Your task to perform on an android device: stop showing notifications on the lock screen Image 0: 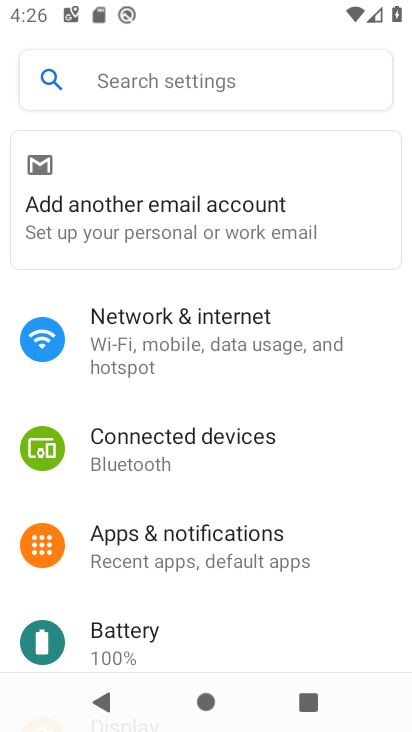
Step 0: click (235, 561)
Your task to perform on an android device: stop showing notifications on the lock screen Image 1: 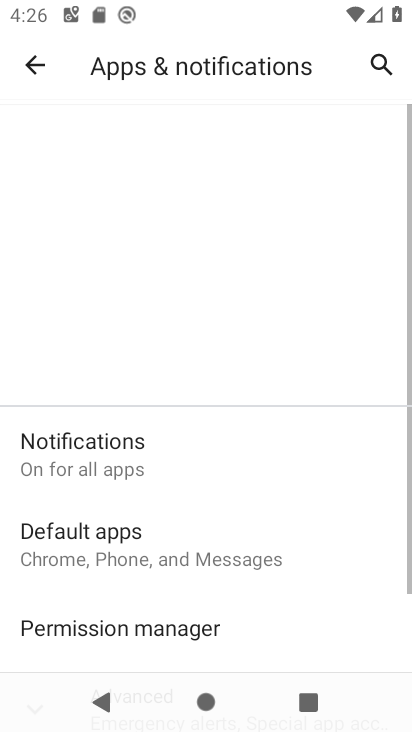
Step 1: drag from (230, 563) to (265, 197)
Your task to perform on an android device: stop showing notifications on the lock screen Image 2: 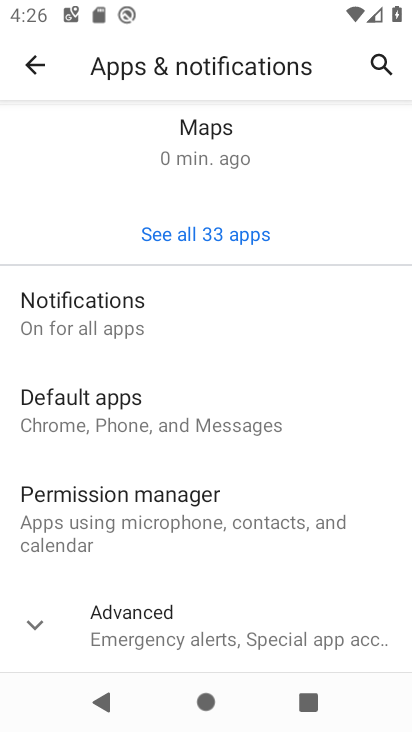
Step 2: click (73, 365)
Your task to perform on an android device: stop showing notifications on the lock screen Image 3: 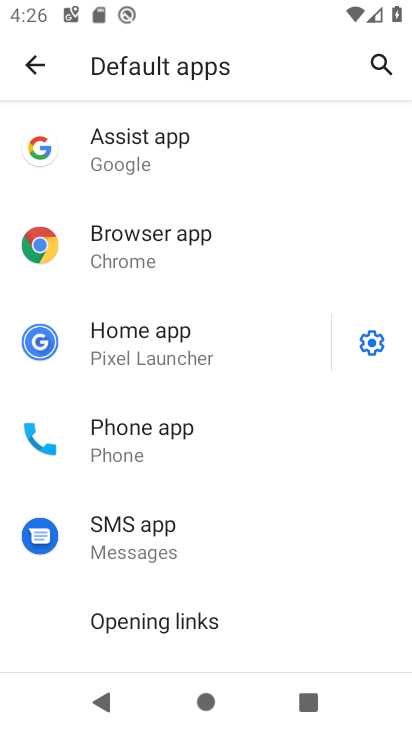
Step 3: click (16, 67)
Your task to perform on an android device: stop showing notifications on the lock screen Image 4: 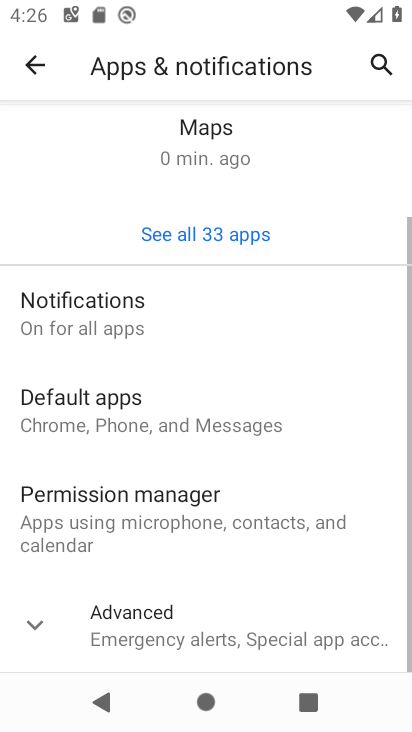
Step 4: click (78, 319)
Your task to perform on an android device: stop showing notifications on the lock screen Image 5: 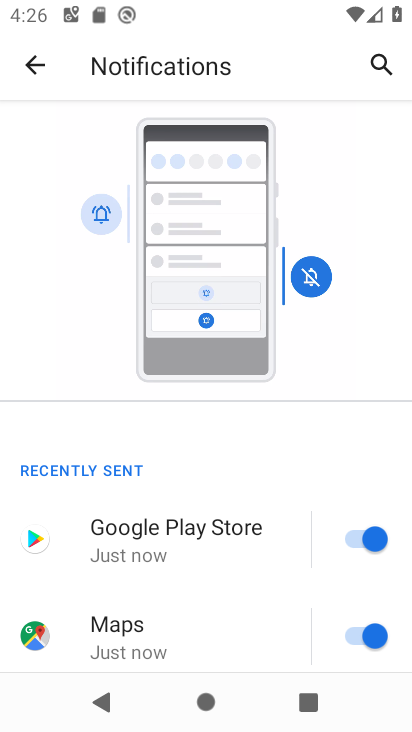
Step 5: drag from (225, 605) to (259, 416)
Your task to perform on an android device: stop showing notifications on the lock screen Image 6: 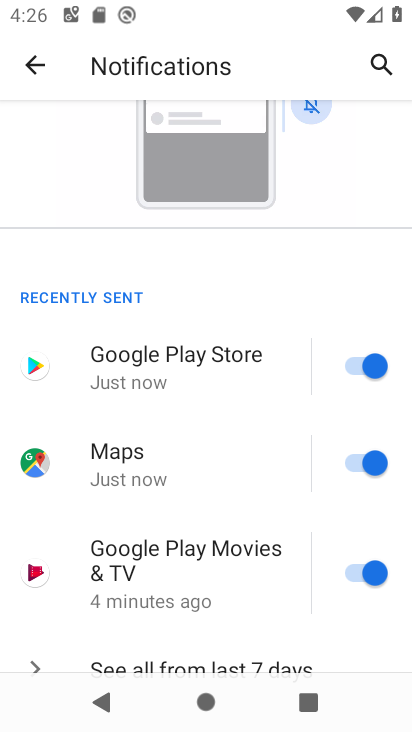
Step 6: drag from (230, 595) to (267, 344)
Your task to perform on an android device: stop showing notifications on the lock screen Image 7: 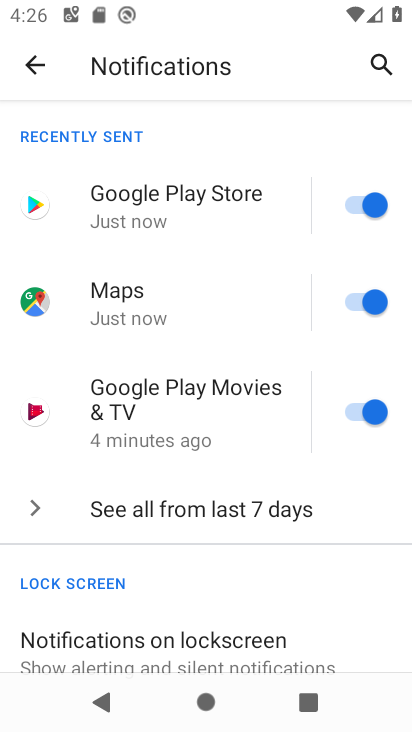
Step 7: click (159, 637)
Your task to perform on an android device: stop showing notifications on the lock screen Image 8: 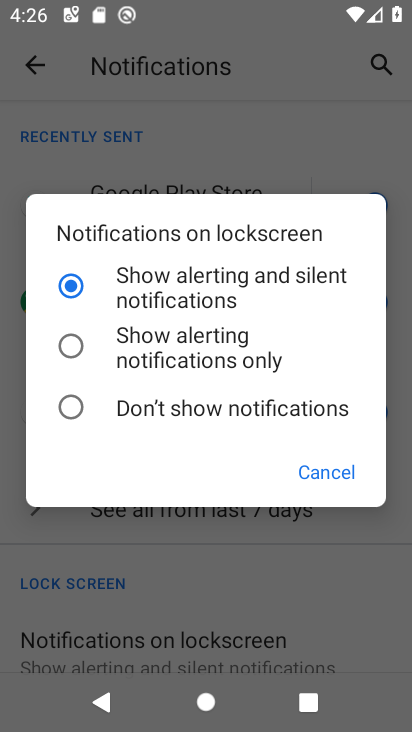
Step 8: click (99, 409)
Your task to perform on an android device: stop showing notifications on the lock screen Image 9: 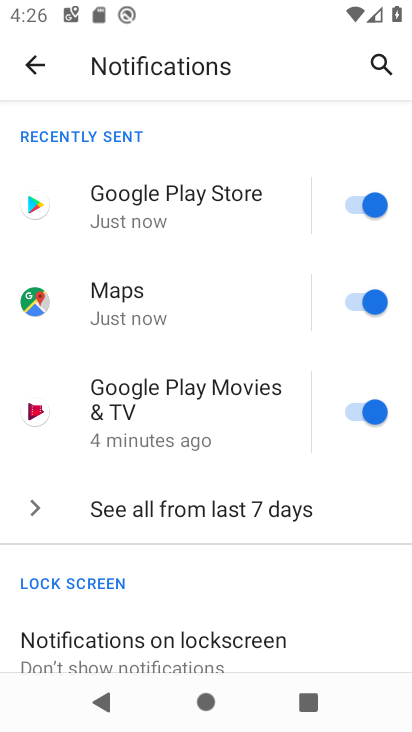
Step 9: task complete